Your task to perform on an android device: turn off data saver in the chrome app Image 0: 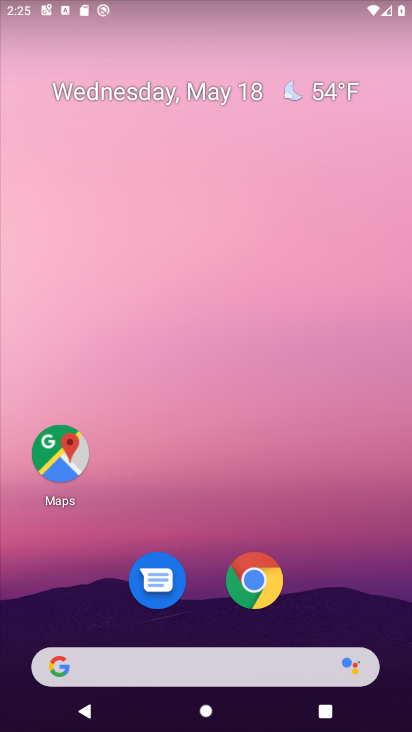
Step 0: drag from (225, 611) to (220, 5)
Your task to perform on an android device: turn off data saver in the chrome app Image 1: 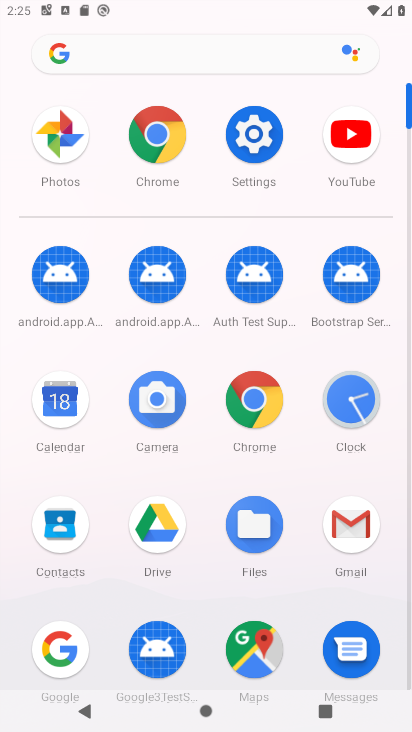
Step 1: click (247, 402)
Your task to perform on an android device: turn off data saver in the chrome app Image 2: 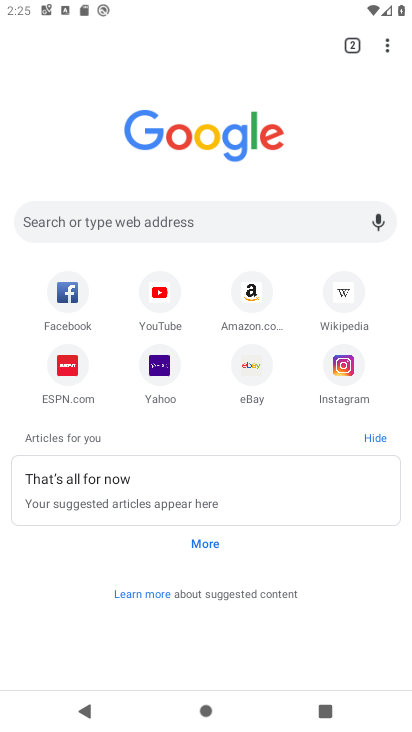
Step 2: click (392, 41)
Your task to perform on an android device: turn off data saver in the chrome app Image 3: 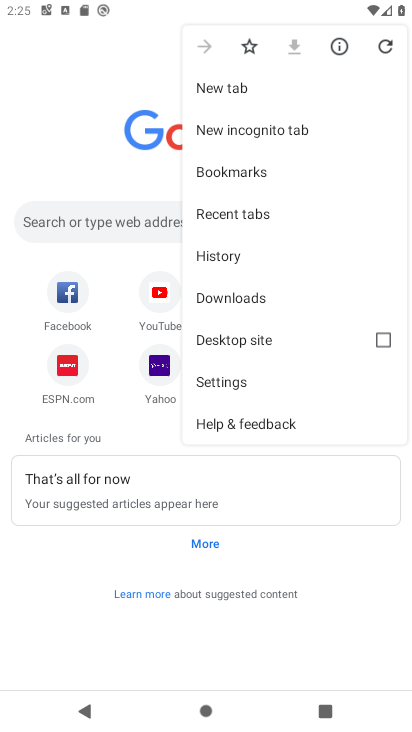
Step 3: click (241, 377)
Your task to perform on an android device: turn off data saver in the chrome app Image 4: 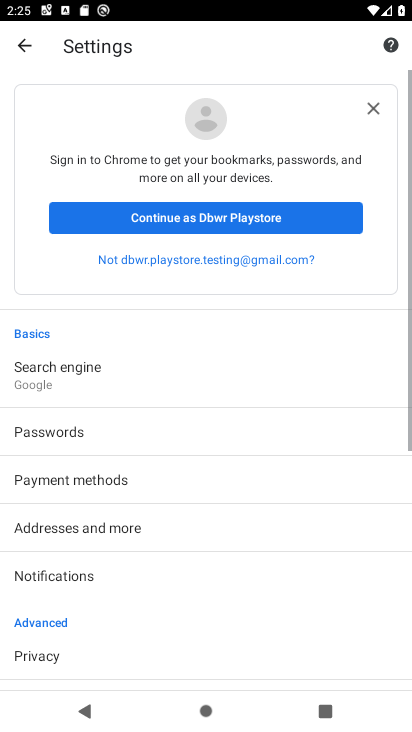
Step 4: drag from (193, 594) to (213, 73)
Your task to perform on an android device: turn off data saver in the chrome app Image 5: 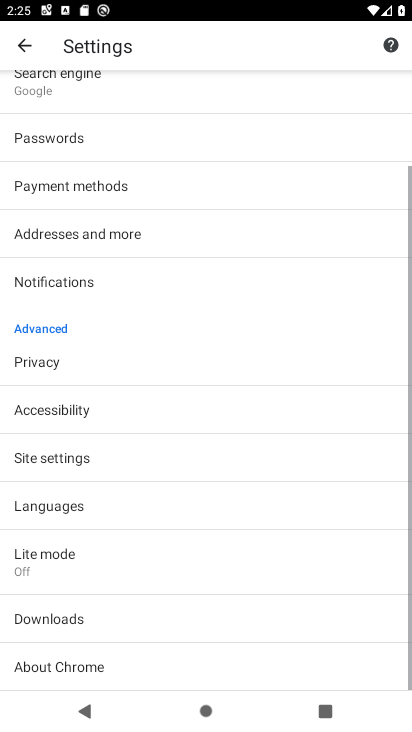
Step 5: drag from (158, 606) to (218, 202)
Your task to perform on an android device: turn off data saver in the chrome app Image 6: 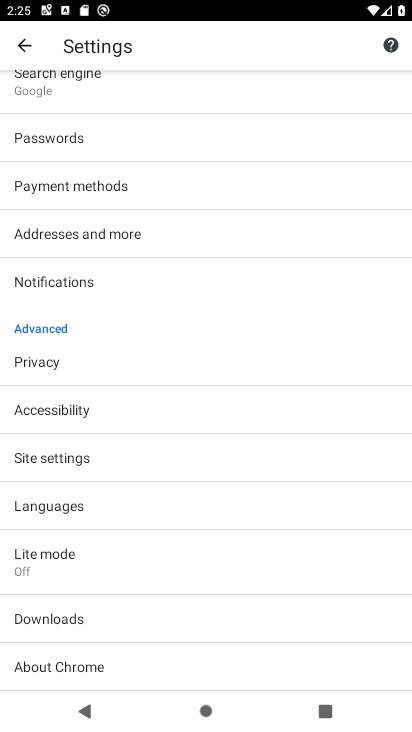
Step 6: click (69, 562)
Your task to perform on an android device: turn off data saver in the chrome app Image 7: 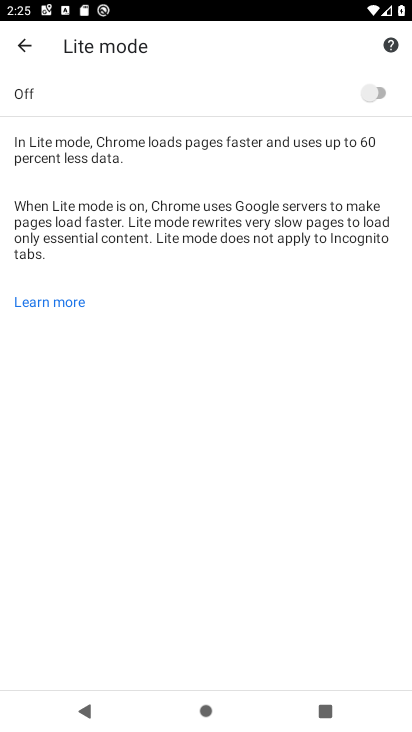
Step 7: task complete